Your task to perform on an android device: turn off location Image 0: 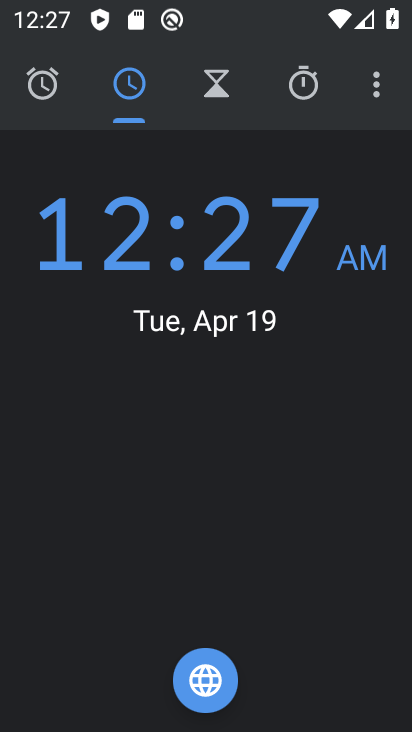
Step 0: press home button
Your task to perform on an android device: turn off location Image 1: 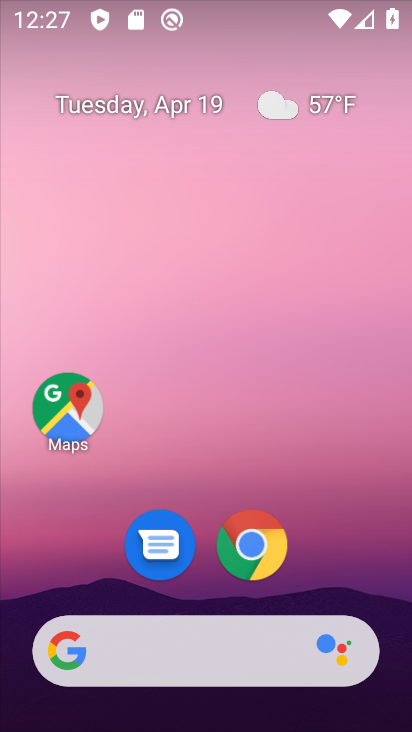
Step 1: drag from (228, 436) to (317, 23)
Your task to perform on an android device: turn off location Image 2: 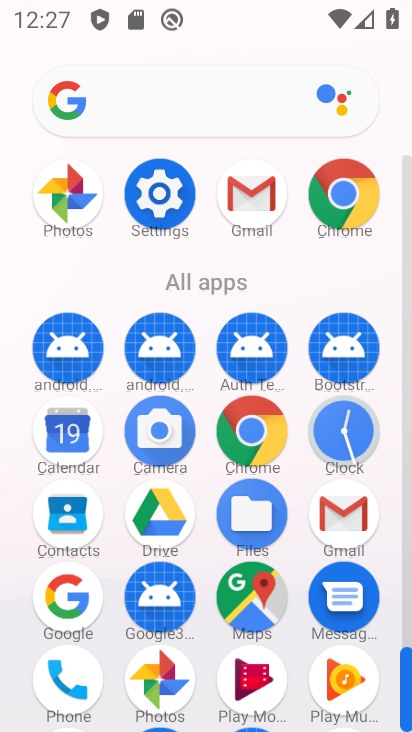
Step 2: click (156, 189)
Your task to perform on an android device: turn off location Image 3: 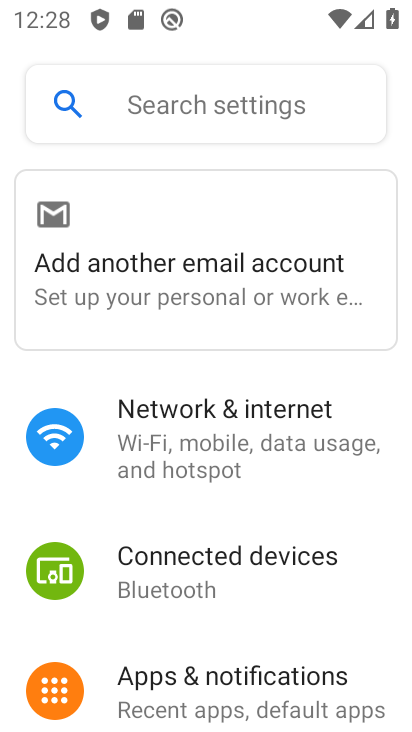
Step 3: drag from (221, 626) to (344, 98)
Your task to perform on an android device: turn off location Image 4: 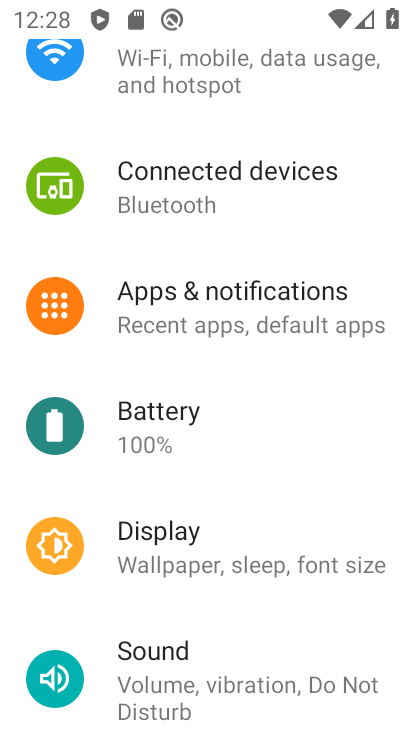
Step 4: drag from (190, 609) to (303, 115)
Your task to perform on an android device: turn off location Image 5: 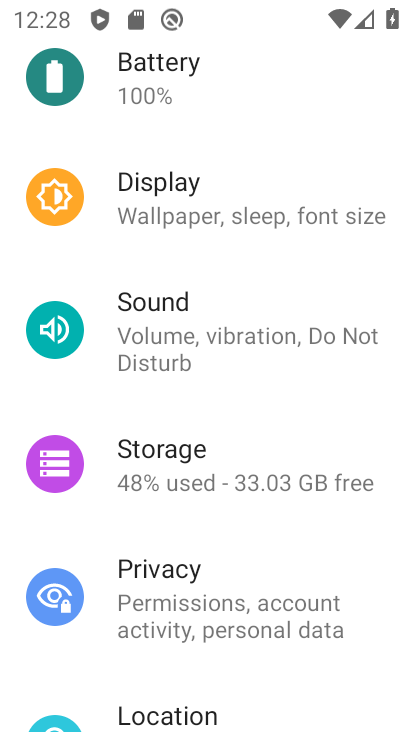
Step 5: drag from (133, 689) to (237, 261)
Your task to perform on an android device: turn off location Image 6: 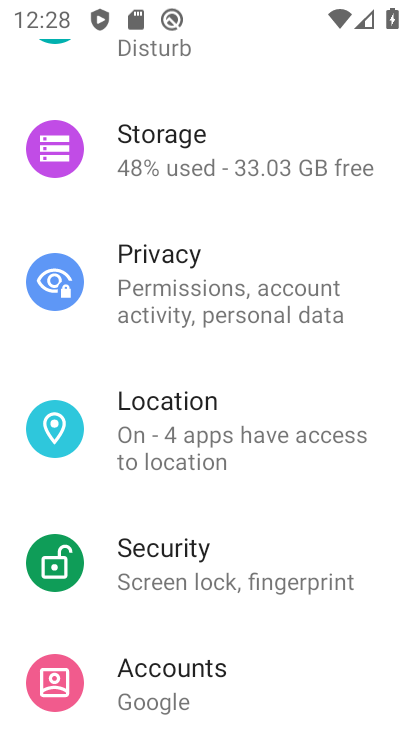
Step 6: click (118, 424)
Your task to perform on an android device: turn off location Image 7: 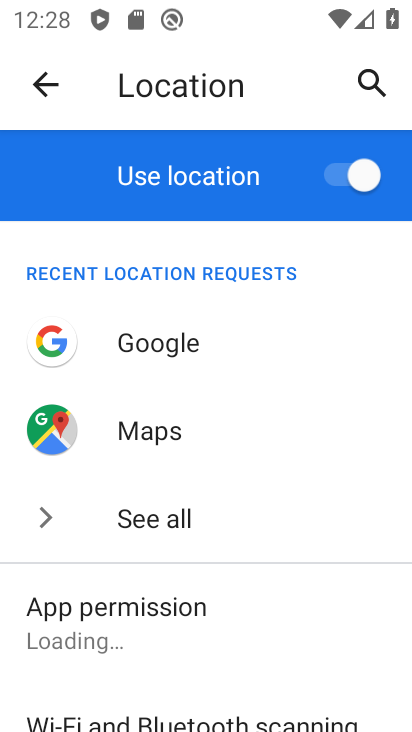
Step 7: click (354, 166)
Your task to perform on an android device: turn off location Image 8: 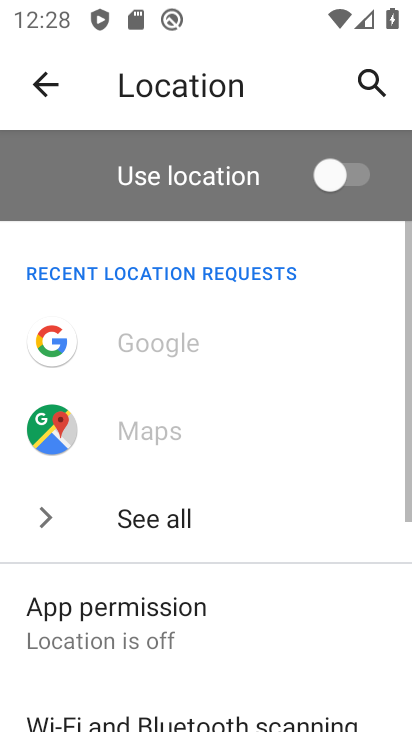
Step 8: task complete